Your task to perform on an android device: turn on javascript in the chrome app Image 0: 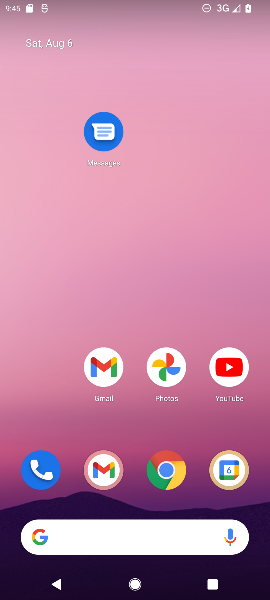
Step 0: drag from (116, 549) to (105, 83)
Your task to perform on an android device: turn on javascript in the chrome app Image 1: 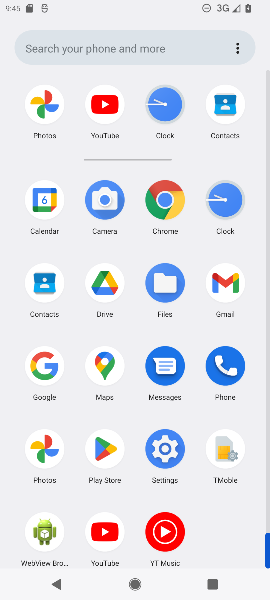
Step 1: click (163, 211)
Your task to perform on an android device: turn on javascript in the chrome app Image 2: 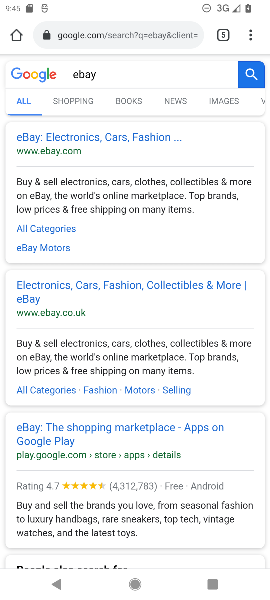
Step 2: click (250, 31)
Your task to perform on an android device: turn on javascript in the chrome app Image 3: 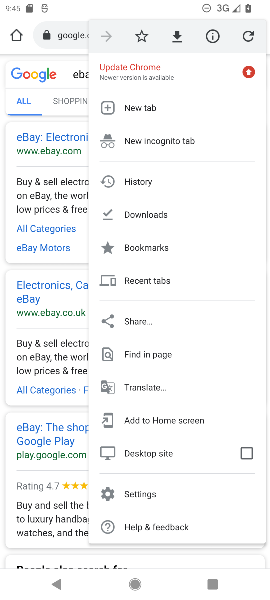
Step 3: click (113, 493)
Your task to perform on an android device: turn on javascript in the chrome app Image 4: 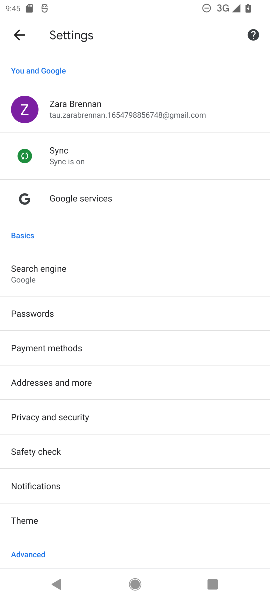
Step 4: drag from (70, 283) to (73, 59)
Your task to perform on an android device: turn on javascript in the chrome app Image 5: 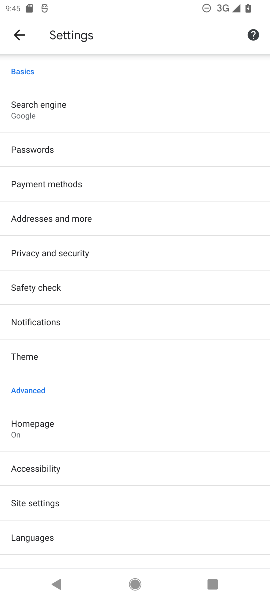
Step 5: drag from (47, 477) to (62, 233)
Your task to perform on an android device: turn on javascript in the chrome app Image 6: 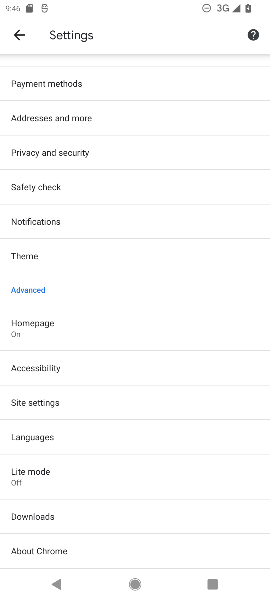
Step 6: click (48, 407)
Your task to perform on an android device: turn on javascript in the chrome app Image 7: 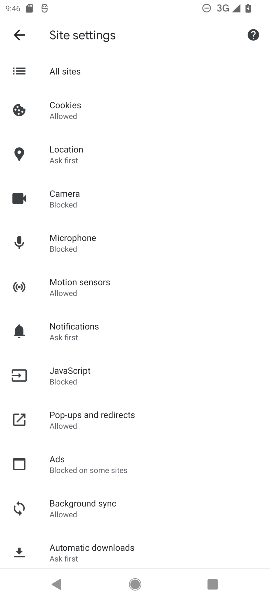
Step 7: click (66, 384)
Your task to perform on an android device: turn on javascript in the chrome app Image 8: 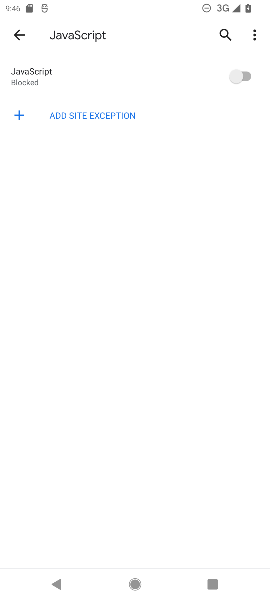
Step 8: click (244, 76)
Your task to perform on an android device: turn on javascript in the chrome app Image 9: 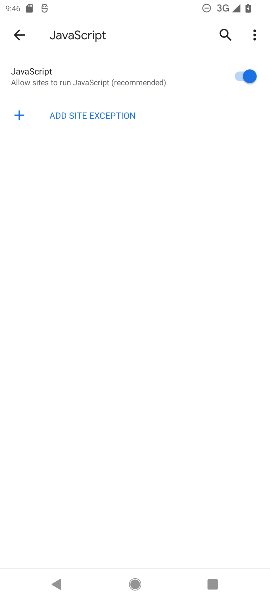
Step 9: task complete